Your task to perform on an android device: Check the news Image 0: 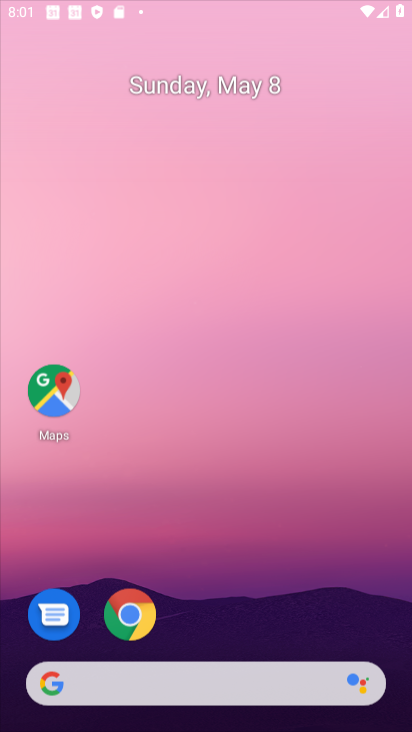
Step 0: click (140, 0)
Your task to perform on an android device: Check the news Image 1: 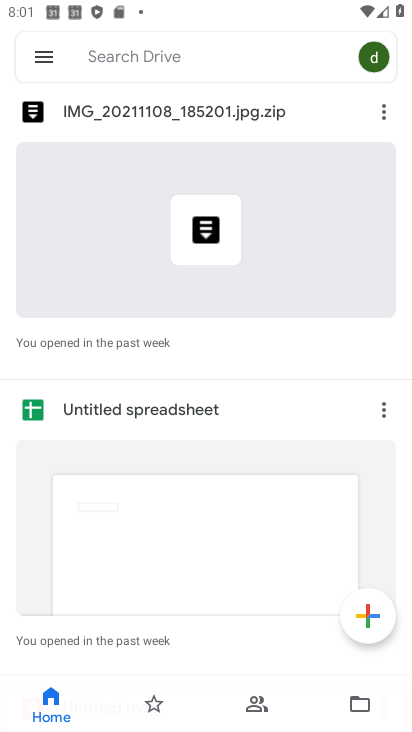
Step 1: press home button
Your task to perform on an android device: Check the news Image 2: 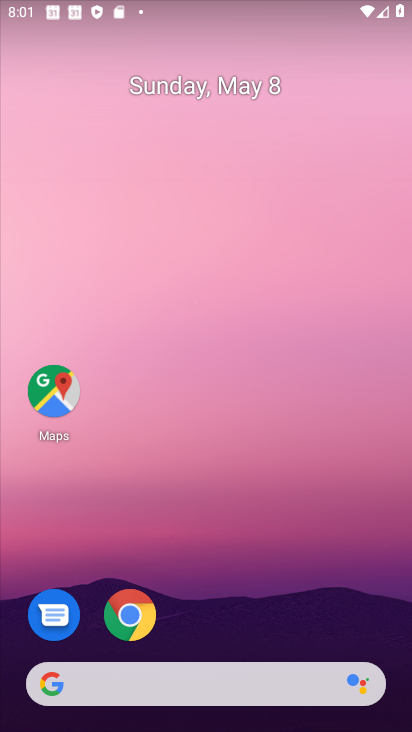
Step 2: click (164, 679)
Your task to perform on an android device: Check the news Image 3: 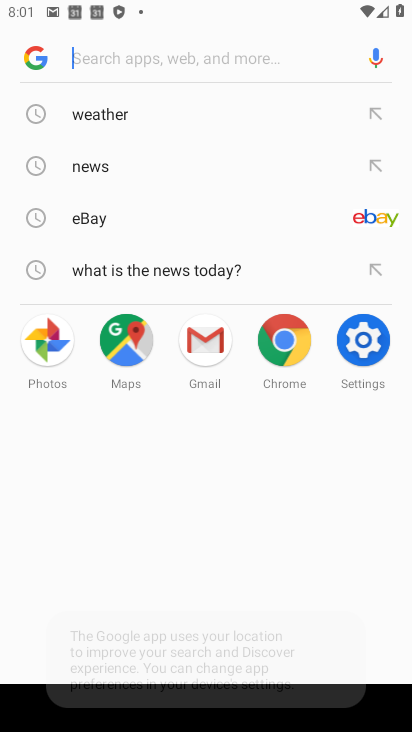
Step 3: click (115, 177)
Your task to perform on an android device: Check the news Image 4: 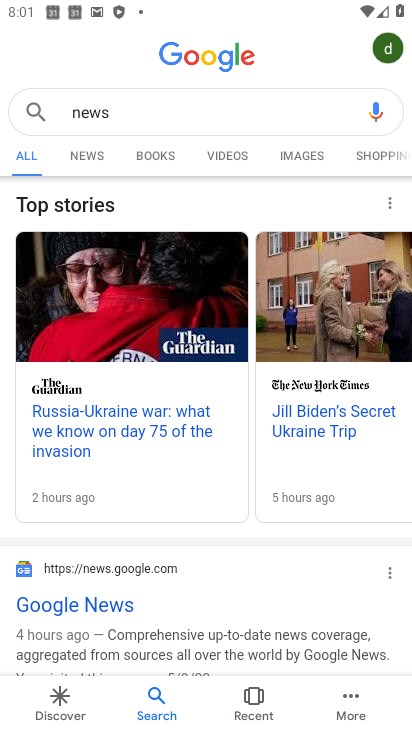
Step 4: task complete